Your task to perform on an android device: open sync settings in chrome Image 0: 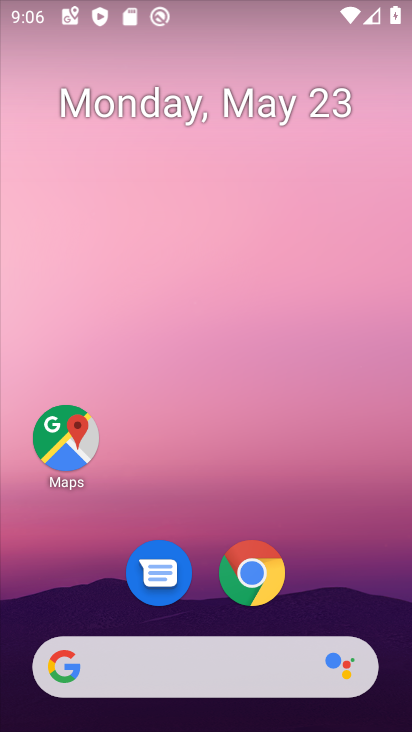
Step 0: drag from (385, 619) to (358, 314)
Your task to perform on an android device: open sync settings in chrome Image 1: 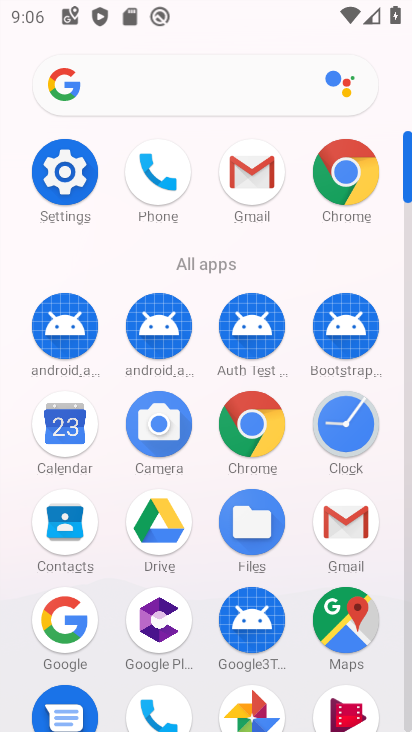
Step 1: click (264, 441)
Your task to perform on an android device: open sync settings in chrome Image 2: 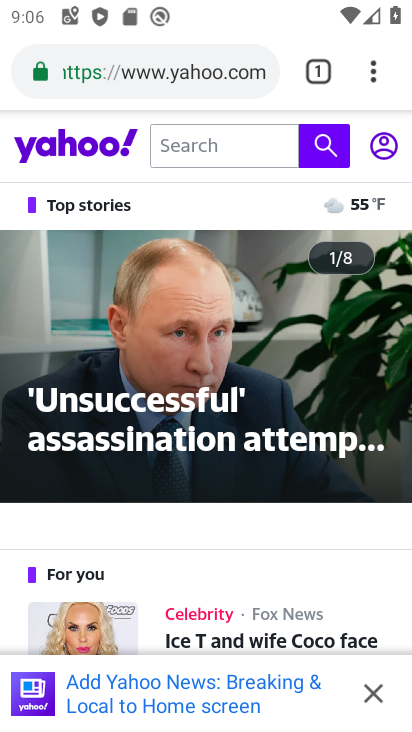
Step 2: click (371, 76)
Your task to perform on an android device: open sync settings in chrome Image 3: 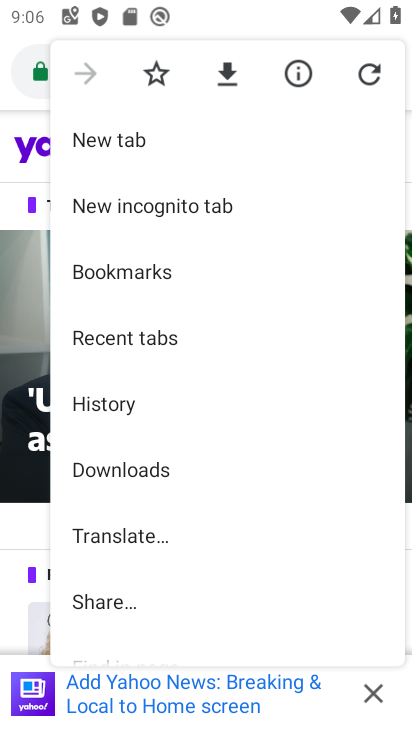
Step 3: drag from (303, 512) to (321, 452)
Your task to perform on an android device: open sync settings in chrome Image 4: 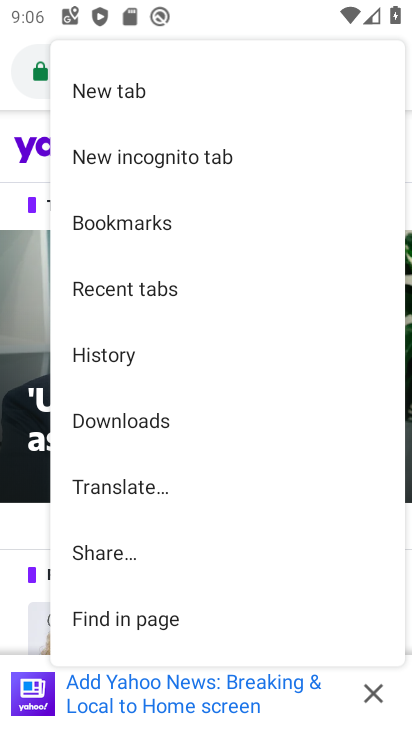
Step 4: drag from (303, 566) to (315, 489)
Your task to perform on an android device: open sync settings in chrome Image 5: 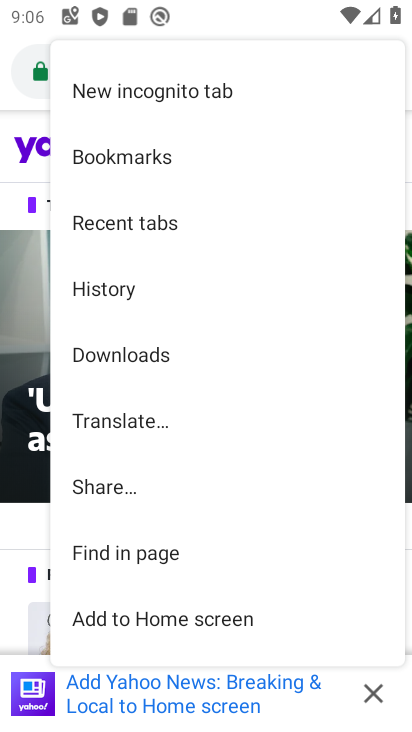
Step 5: drag from (295, 584) to (328, 493)
Your task to perform on an android device: open sync settings in chrome Image 6: 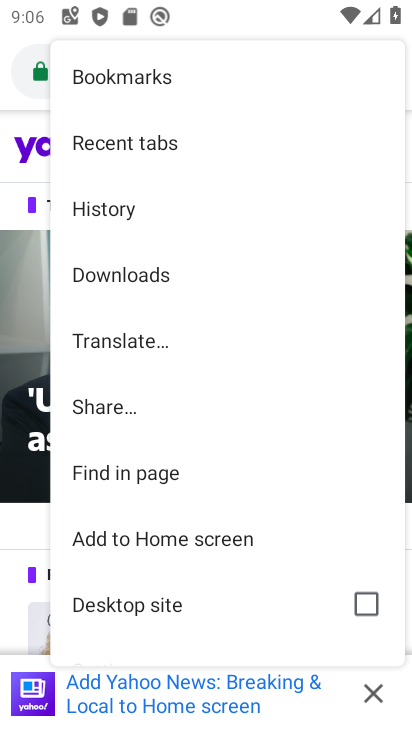
Step 6: drag from (284, 603) to (296, 500)
Your task to perform on an android device: open sync settings in chrome Image 7: 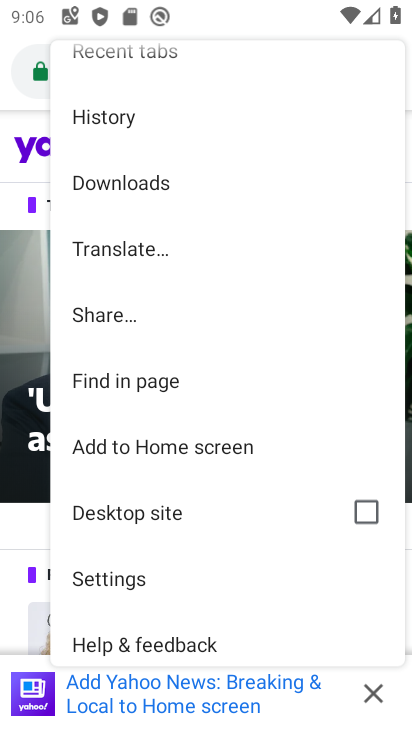
Step 7: click (179, 587)
Your task to perform on an android device: open sync settings in chrome Image 8: 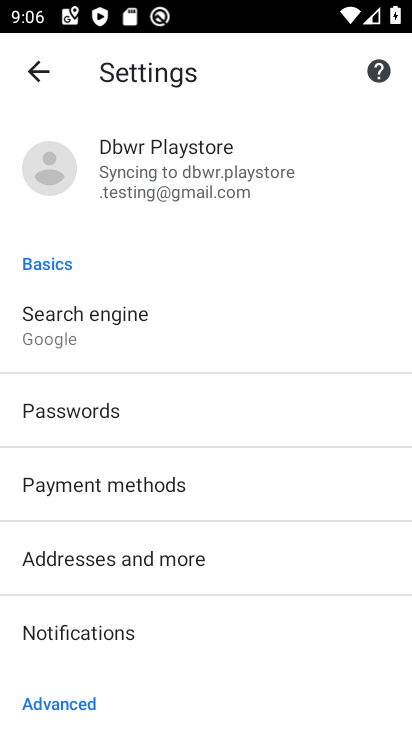
Step 8: drag from (311, 665) to (312, 574)
Your task to perform on an android device: open sync settings in chrome Image 9: 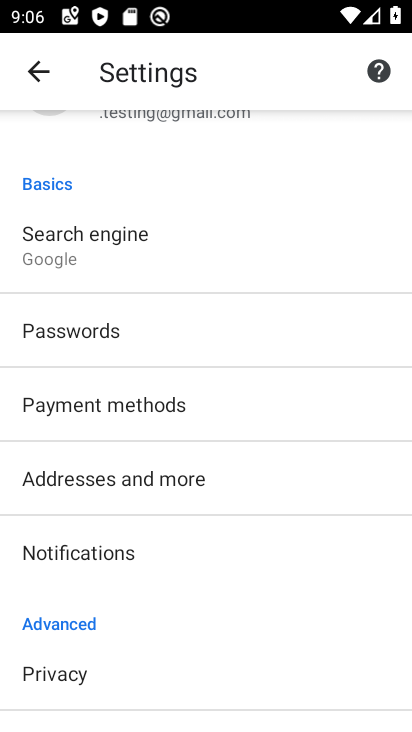
Step 9: drag from (302, 646) to (325, 569)
Your task to perform on an android device: open sync settings in chrome Image 10: 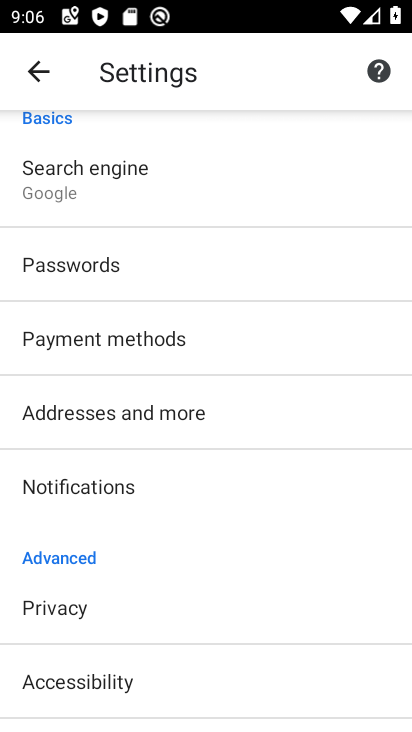
Step 10: drag from (307, 664) to (321, 602)
Your task to perform on an android device: open sync settings in chrome Image 11: 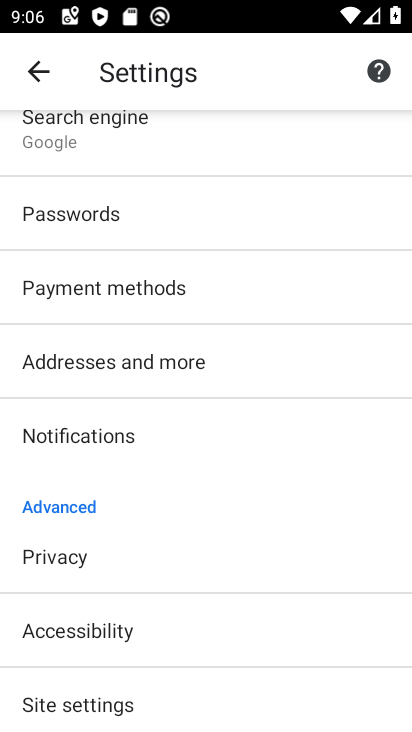
Step 11: drag from (329, 683) to (343, 564)
Your task to perform on an android device: open sync settings in chrome Image 12: 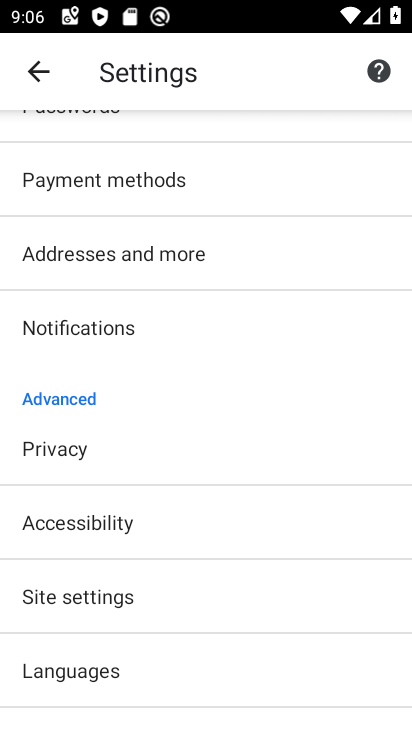
Step 12: drag from (326, 666) to (323, 575)
Your task to perform on an android device: open sync settings in chrome Image 13: 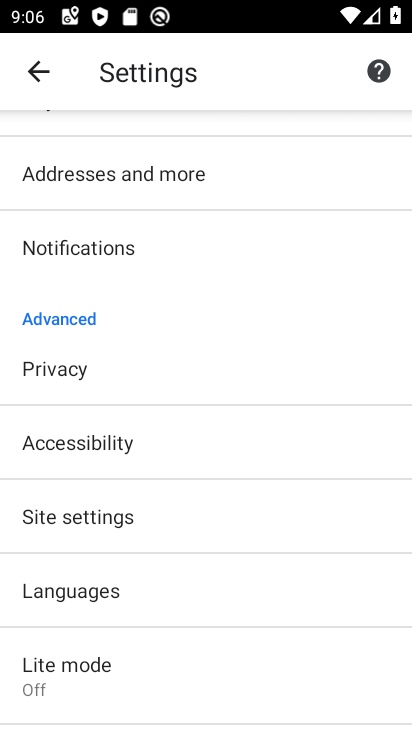
Step 13: click (229, 516)
Your task to perform on an android device: open sync settings in chrome Image 14: 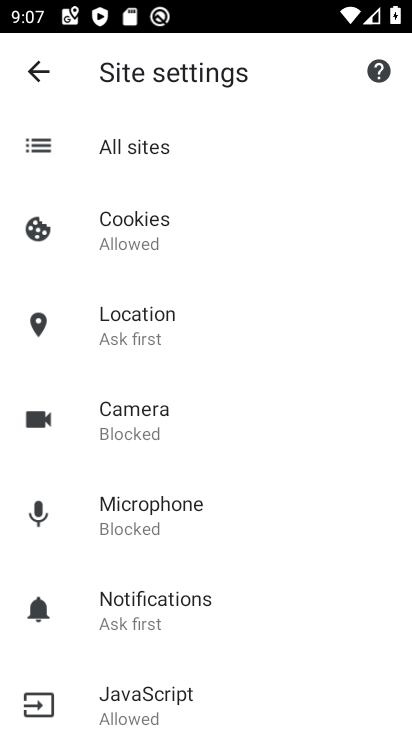
Step 14: drag from (330, 606) to (326, 490)
Your task to perform on an android device: open sync settings in chrome Image 15: 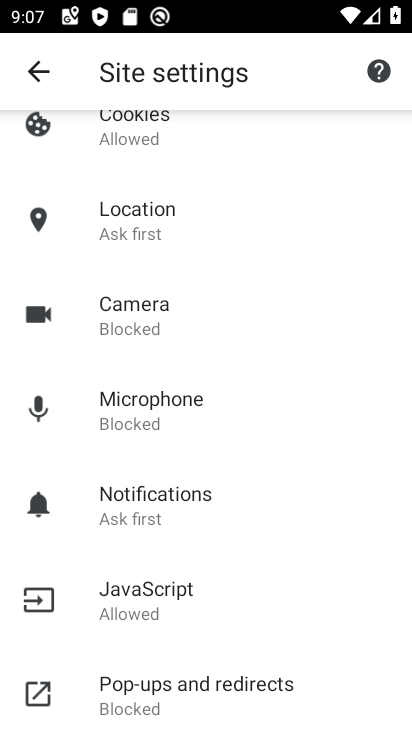
Step 15: drag from (358, 619) to (360, 475)
Your task to perform on an android device: open sync settings in chrome Image 16: 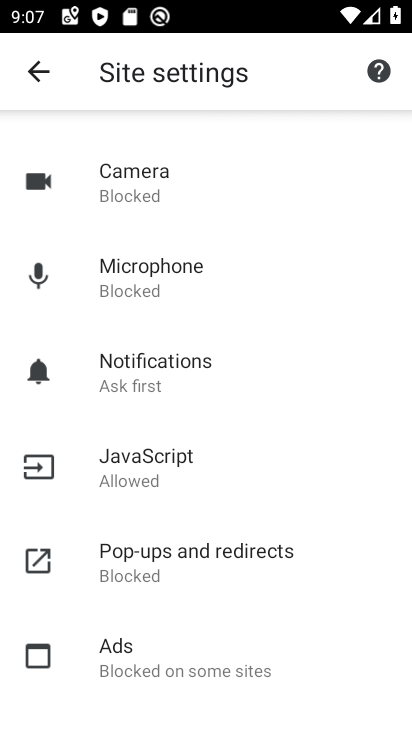
Step 16: drag from (355, 618) to (363, 500)
Your task to perform on an android device: open sync settings in chrome Image 17: 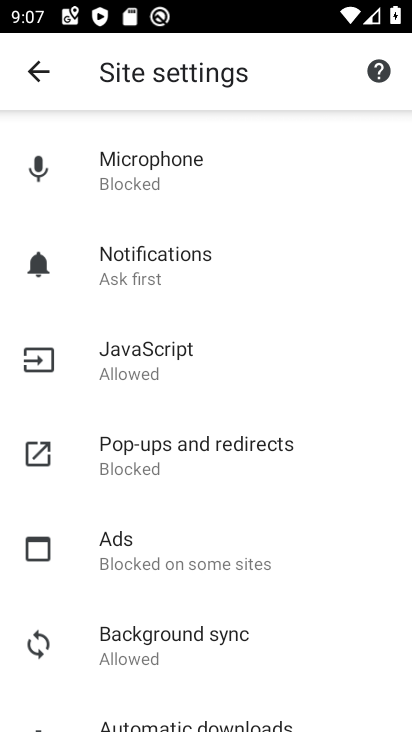
Step 17: drag from (372, 586) to (368, 484)
Your task to perform on an android device: open sync settings in chrome Image 18: 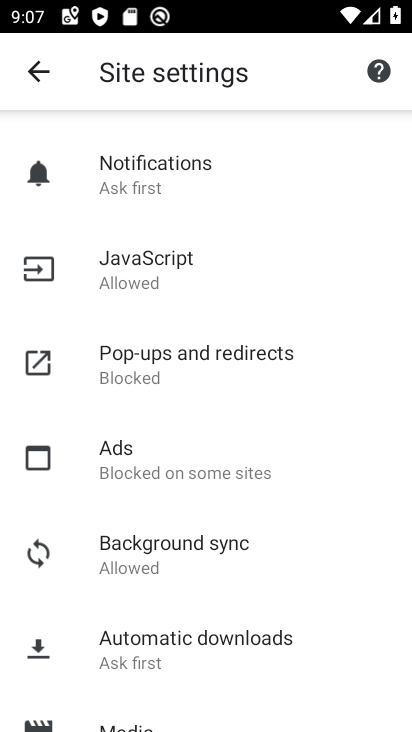
Step 18: drag from (367, 607) to (354, 497)
Your task to perform on an android device: open sync settings in chrome Image 19: 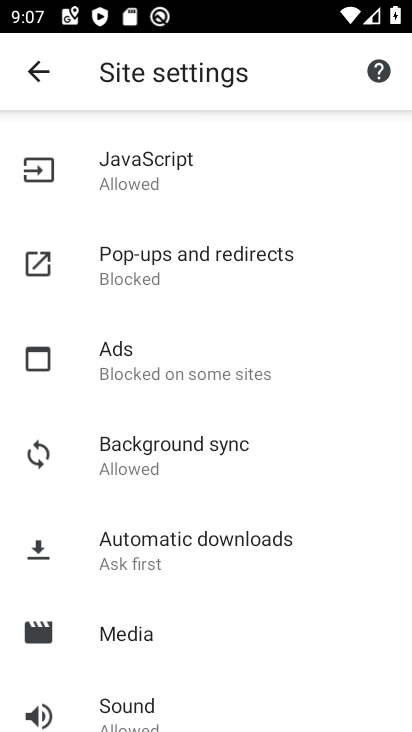
Step 19: click (200, 470)
Your task to perform on an android device: open sync settings in chrome Image 20: 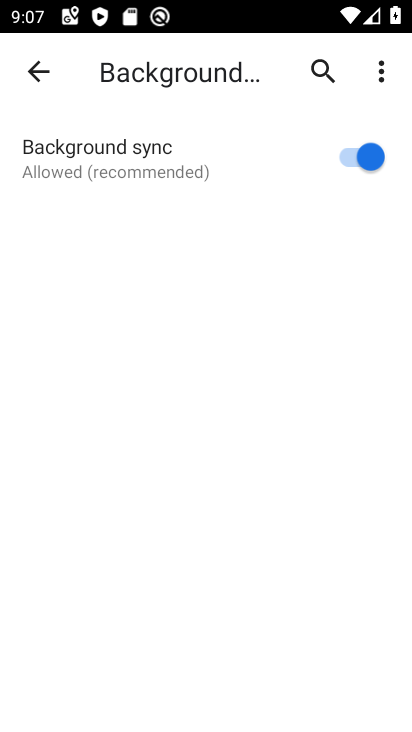
Step 20: task complete